Your task to perform on an android device: Open Google Image 0: 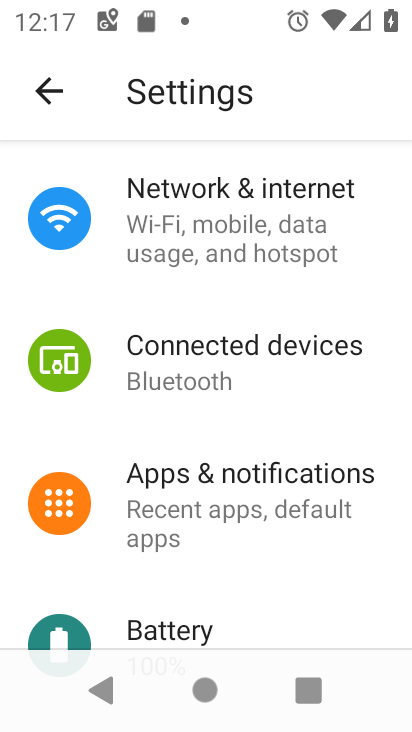
Step 0: press home button
Your task to perform on an android device: Open Google Image 1: 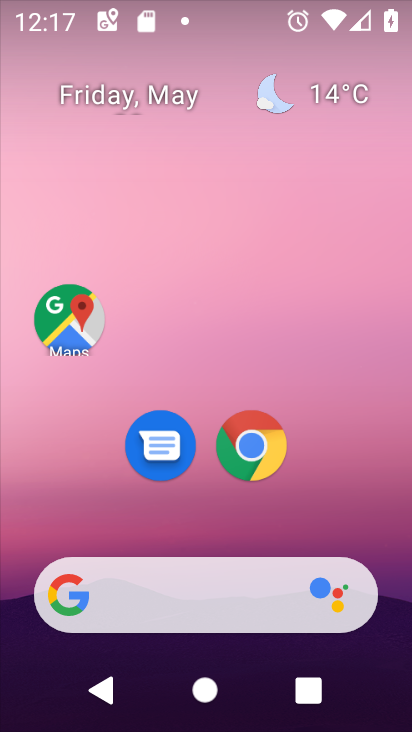
Step 1: drag from (185, 527) to (244, 157)
Your task to perform on an android device: Open Google Image 2: 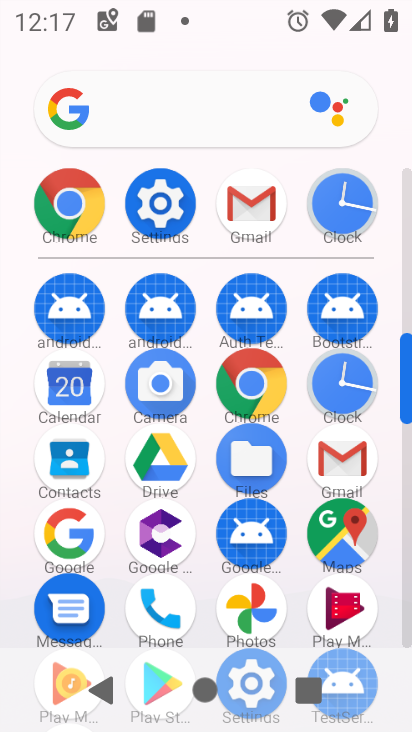
Step 2: click (86, 540)
Your task to perform on an android device: Open Google Image 3: 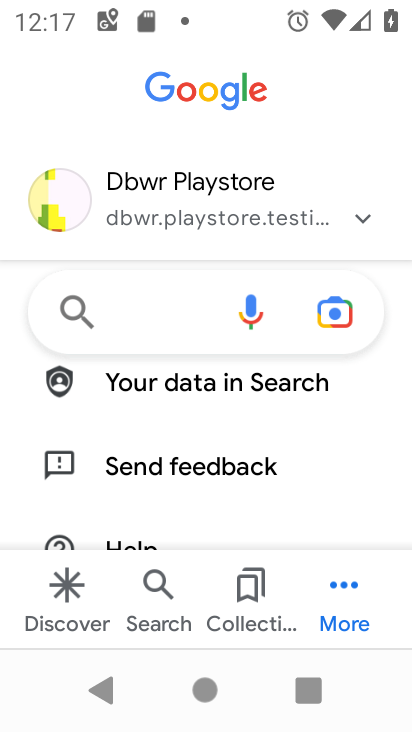
Step 3: click (55, 615)
Your task to perform on an android device: Open Google Image 4: 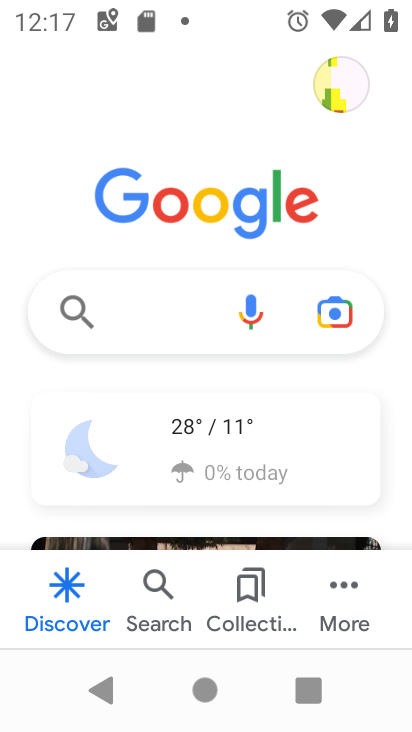
Step 4: task complete